Your task to perform on an android device: change keyboard looks Image 0: 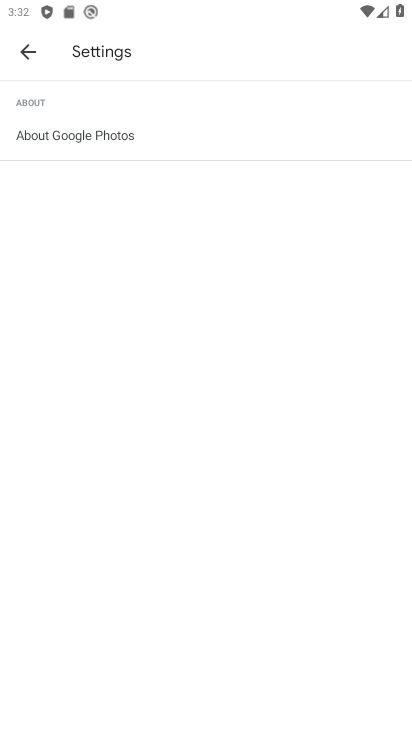
Step 0: click (17, 60)
Your task to perform on an android device: change keyboard looks Image 1: 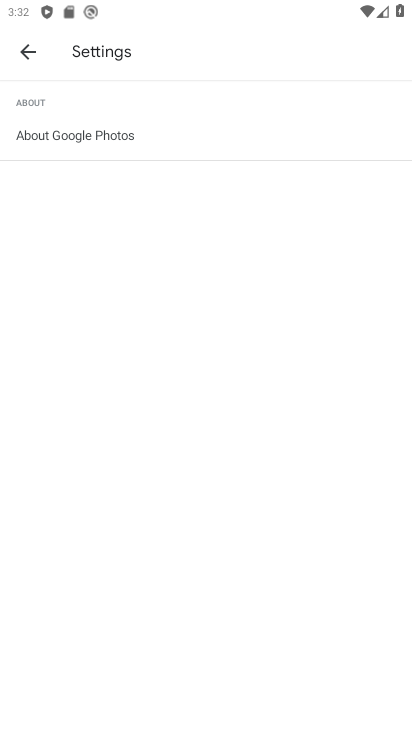
Step 1: click (29, 49)
Your task to perform on an android device: change keyboard looks Image 2: 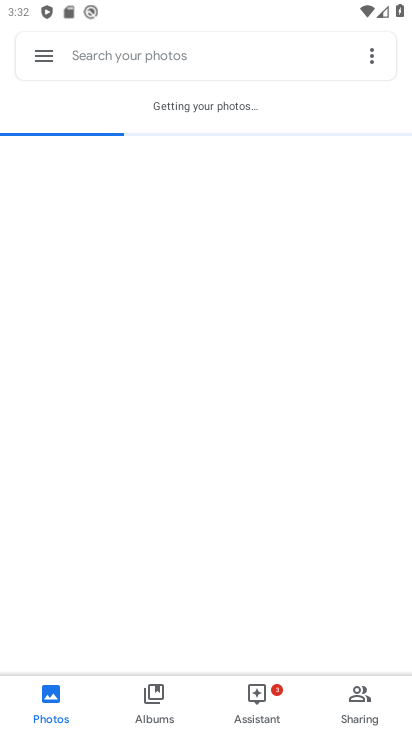
Step 2: click (30, 48)
Your task to perform on an android device: change keyboard looks Image 3: 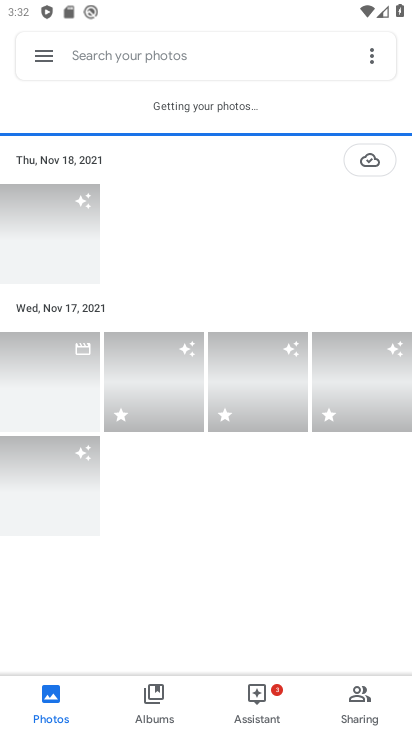
Step 3: click (30, 48)
Your task to perform on an android device: change keyboard looks Image 4: 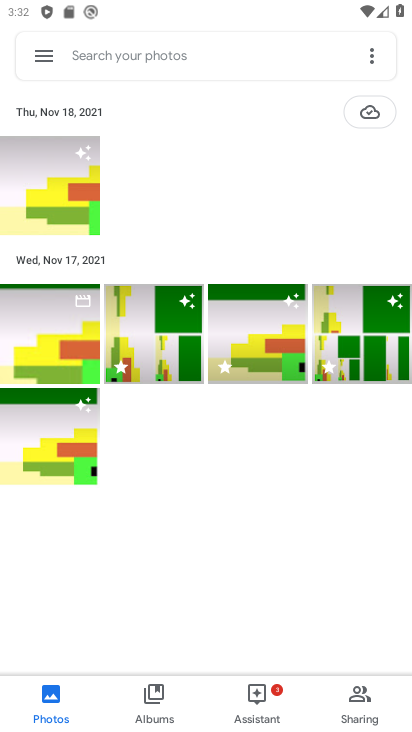
Step 4: press back button
Your task to perform on an android device: change keyboard looks Image 5: 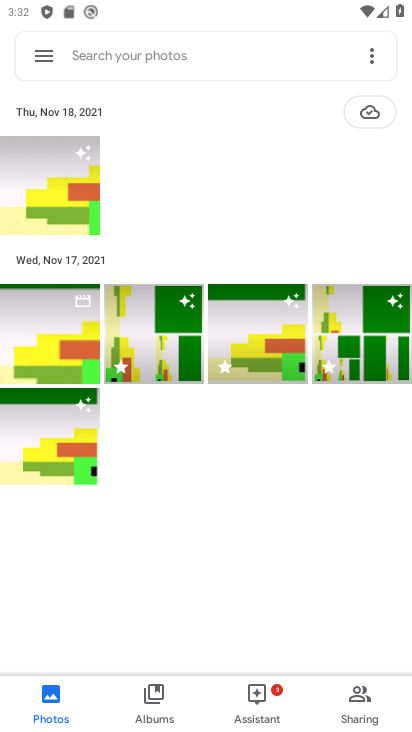
Step 5: press back button
Your task to perform on an android device: change keyboard looks Image 6: 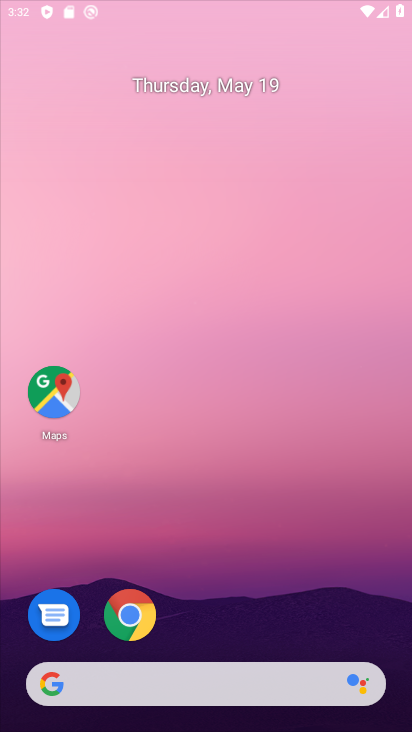
Step 6: press back button
Your task to perform on an android device: change keyboard looks Image 7: 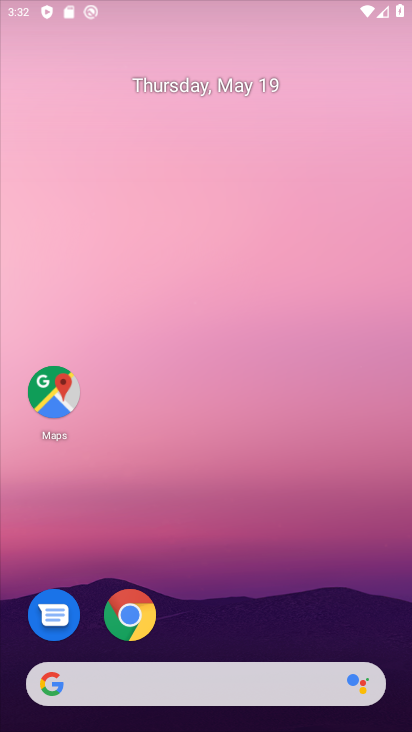
Step 7: press back button
Your task to perform on an android device: change keyboard looks Image 8: 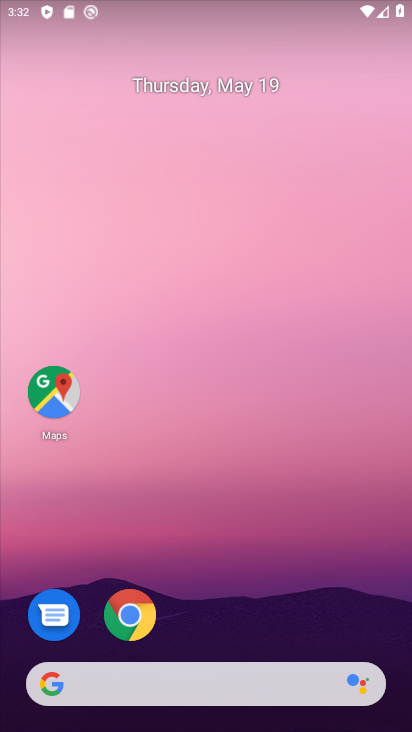
Step 8: drag from (226, 610) to (166, 0)
Your task to perform on an android device: change keyboard looks Image 9: 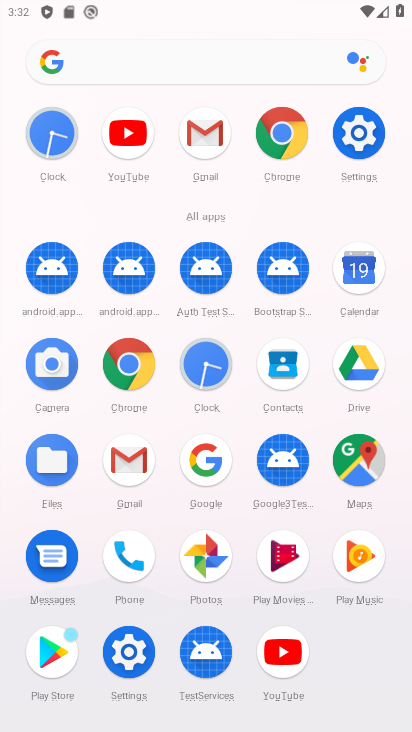
Step 9: click (354, 144)
Your task to perform on an android device: change keyboard looks Image 10: 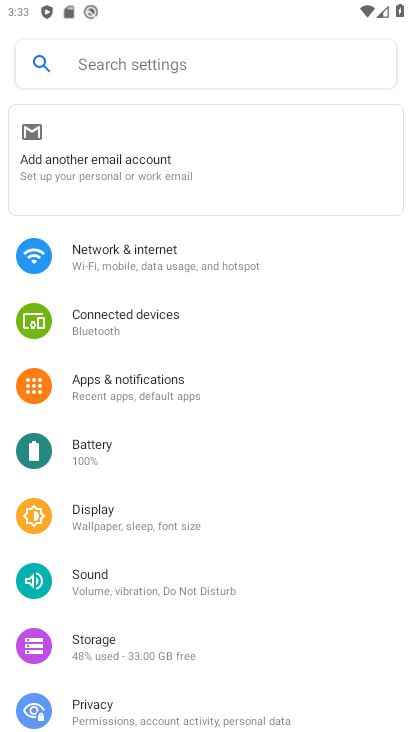
Step 10: drag from (127, 609) to (111, 195)
Your task to perform on an android device: change keyboard looks Image 11: 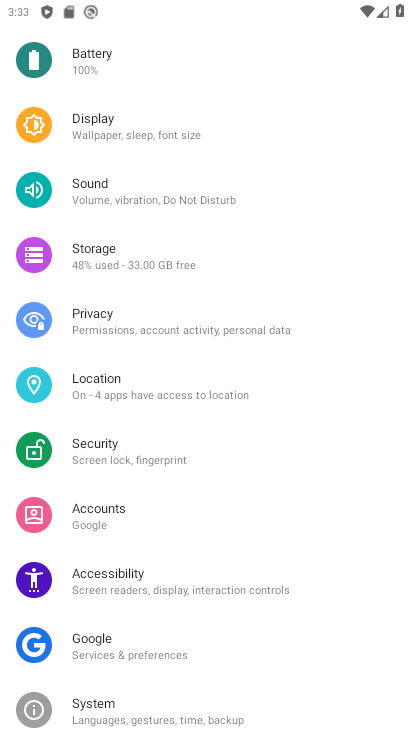
Step 11: drag from (199, 492) to (177, 138)
Your task to perform on an android device: change keyboard looks Image 12: 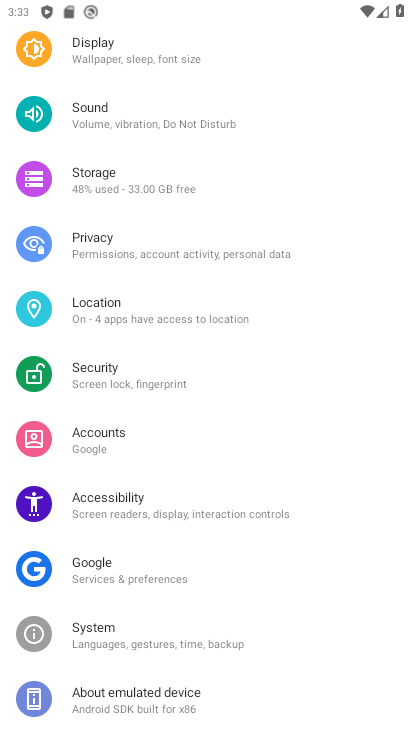
Step 12: click (114, 635)
Your task to perform on an android device: change keyboard looks Image 13: 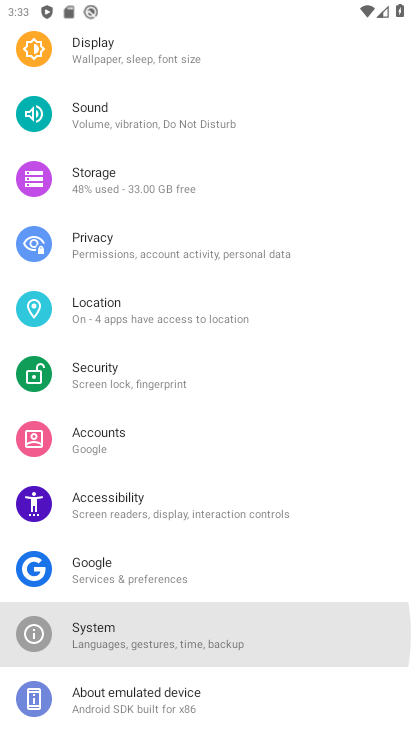
Step 13: click (114, 635)
Your task to perform on an android device: change keyboard looks Image 14: 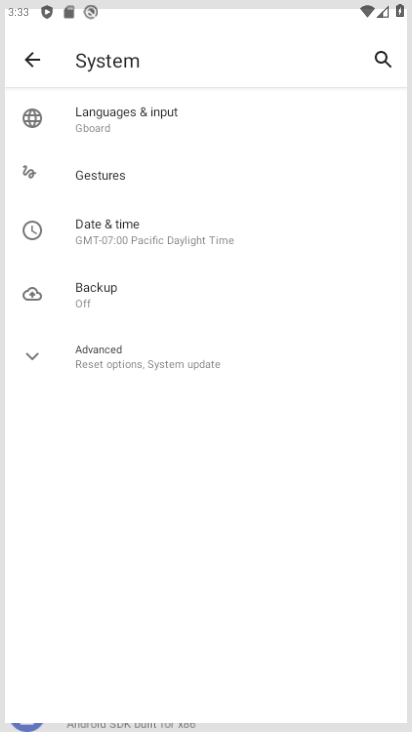
Step 14: click (114, 635)
Your task to perform on an android device: change keyboard looks Image 15: 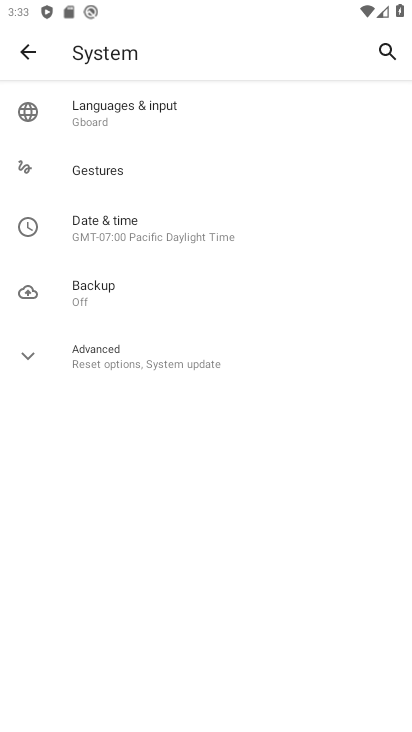
Step 15: click (96, 113)
Your task to perform on an android device: change keyboard looks Image 16: 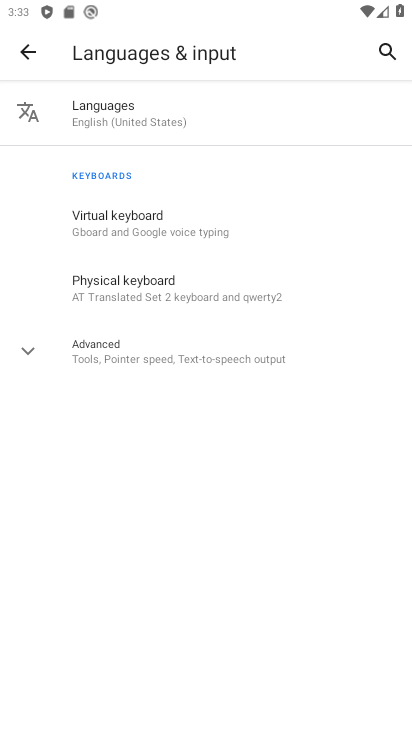
Step 16: click (118, 213)
Your task to perform on an android device: change keyboard looks Image 17: 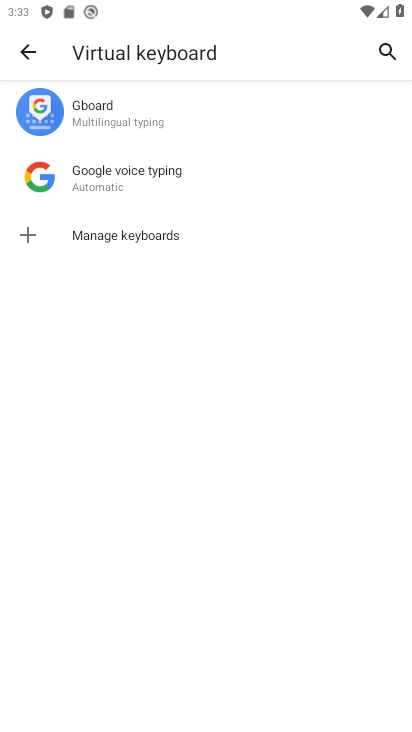
Step 17: click (97, 123)
Your task to perform on an android device: change keyboard looks Image 18: 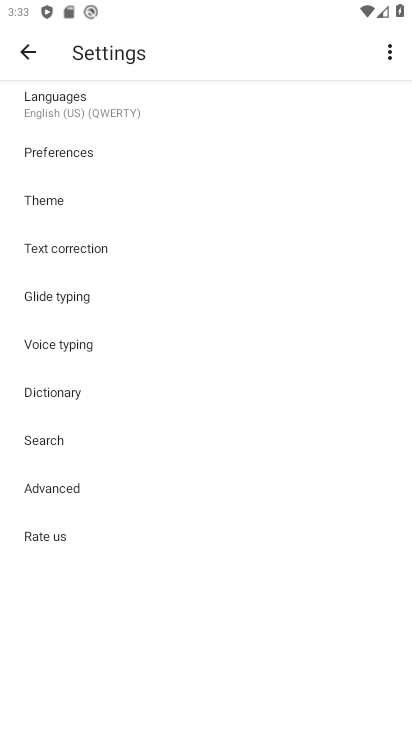
Step 18: click (49, 206)
Your task to perform on an android device: change keyboard looks Image 19: 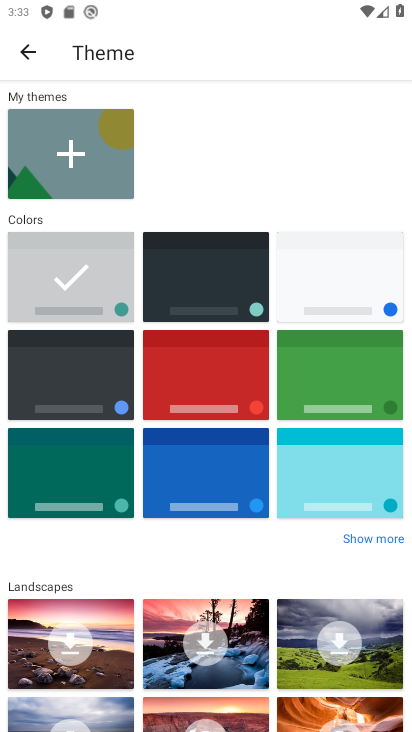
Step 19: click (77, 396)
Your task to perform on an android device: change keyboard looks Image 20: 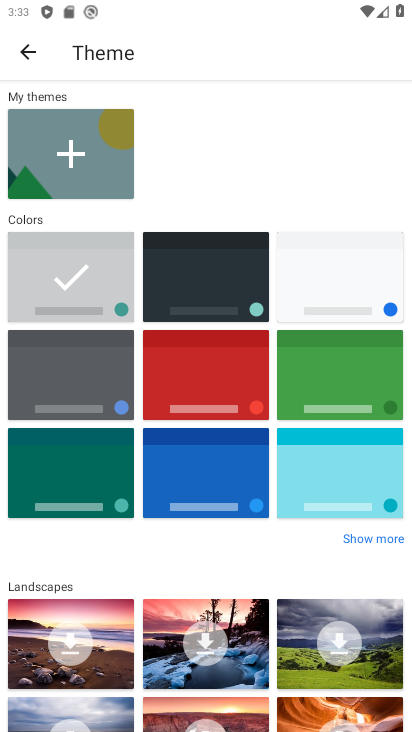
Step 20: click (77, 396)
Your task to perform on an android device: change keyboard looks Image 21: 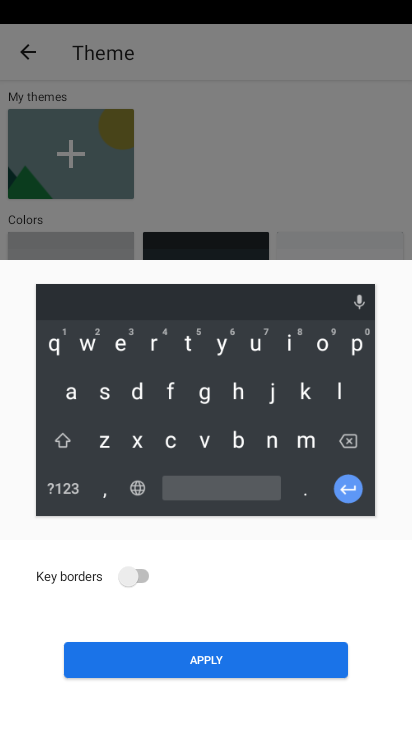
Step 21: click (198, 655)
Your task to perform on an android device: change keyboard looks Image 22: 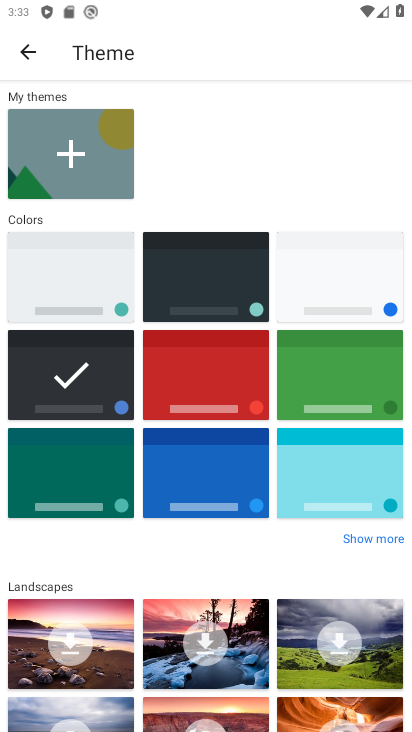
Step 22: task complete